Your task to perform on an android device: Add razer nari to the cart on target.com, then select checkout. Image 0: 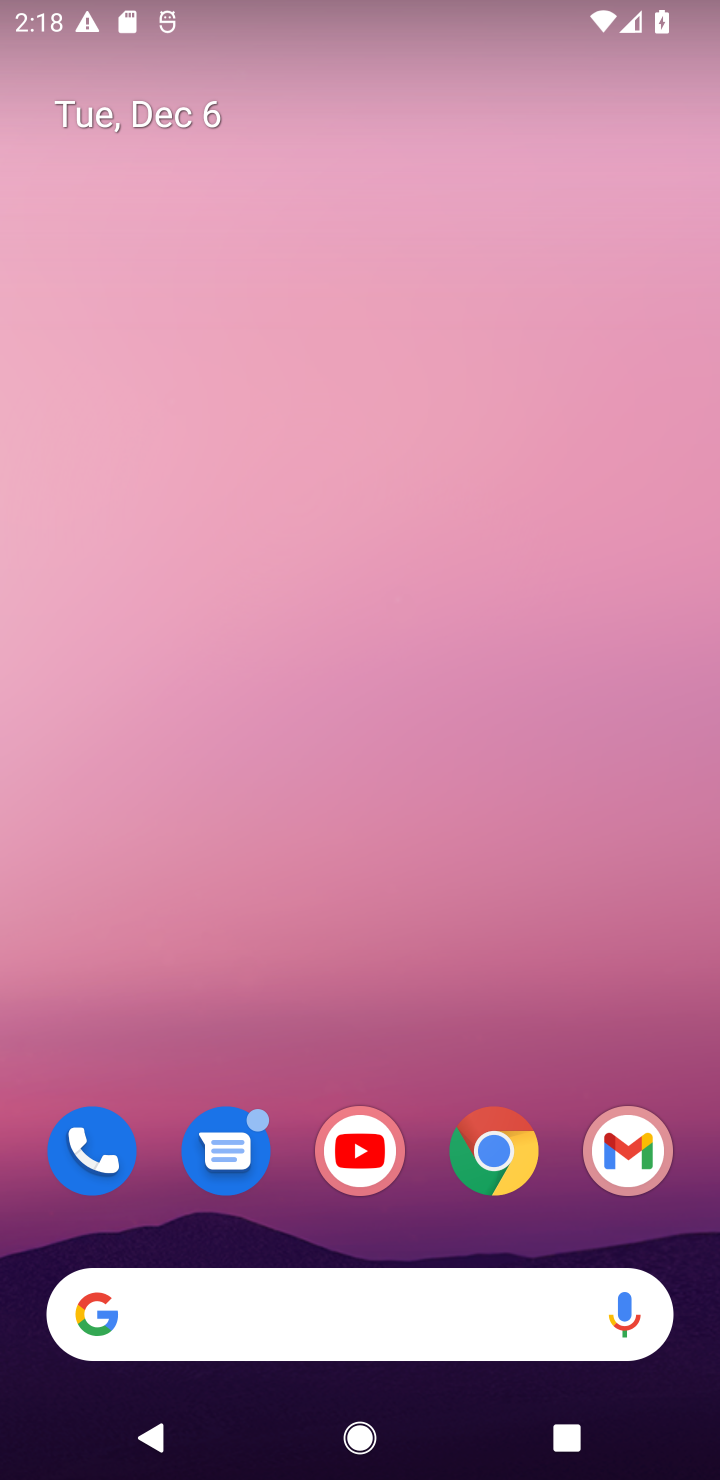
Step 0: click (497, 1150)
Your task to perform on an android device: Add razer nari to the cart on target.com, then select checkout. Image 1: 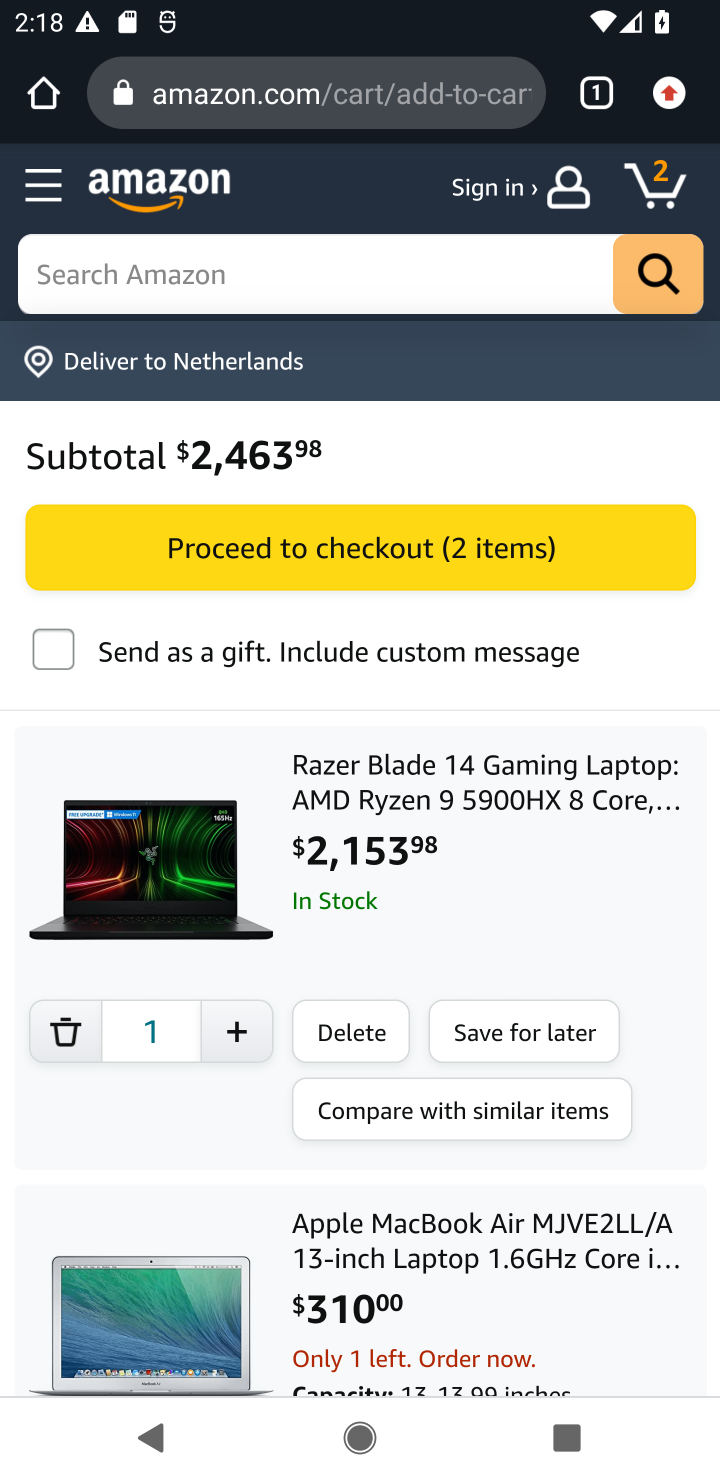
Step 1: click (275, 106)
Your task to perform on an android device: Add razer nari to the cart on target.com, then select checkout. Image 2: 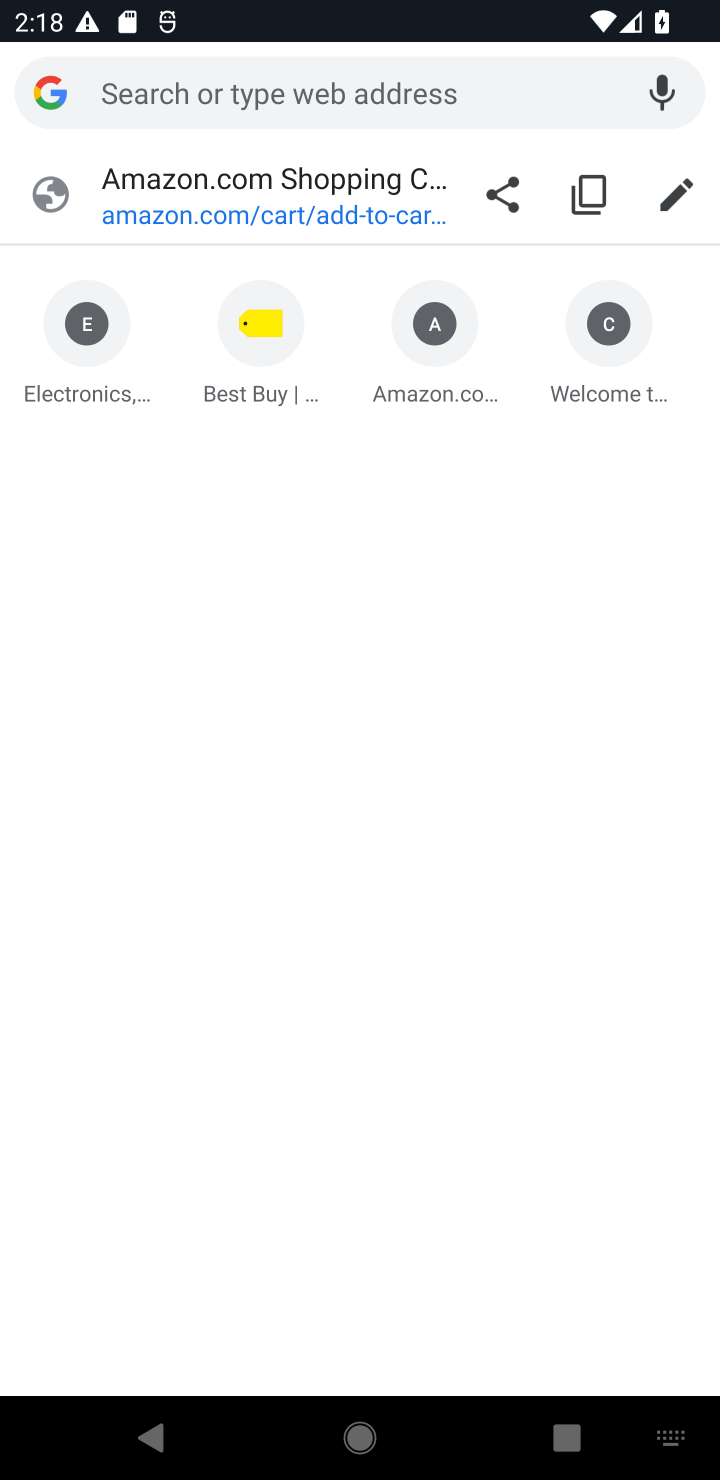
Step 2: type "target.com"
Your task to perform on an android device: Add razer nari to the cart on target.com, then select checkout. Image 3: 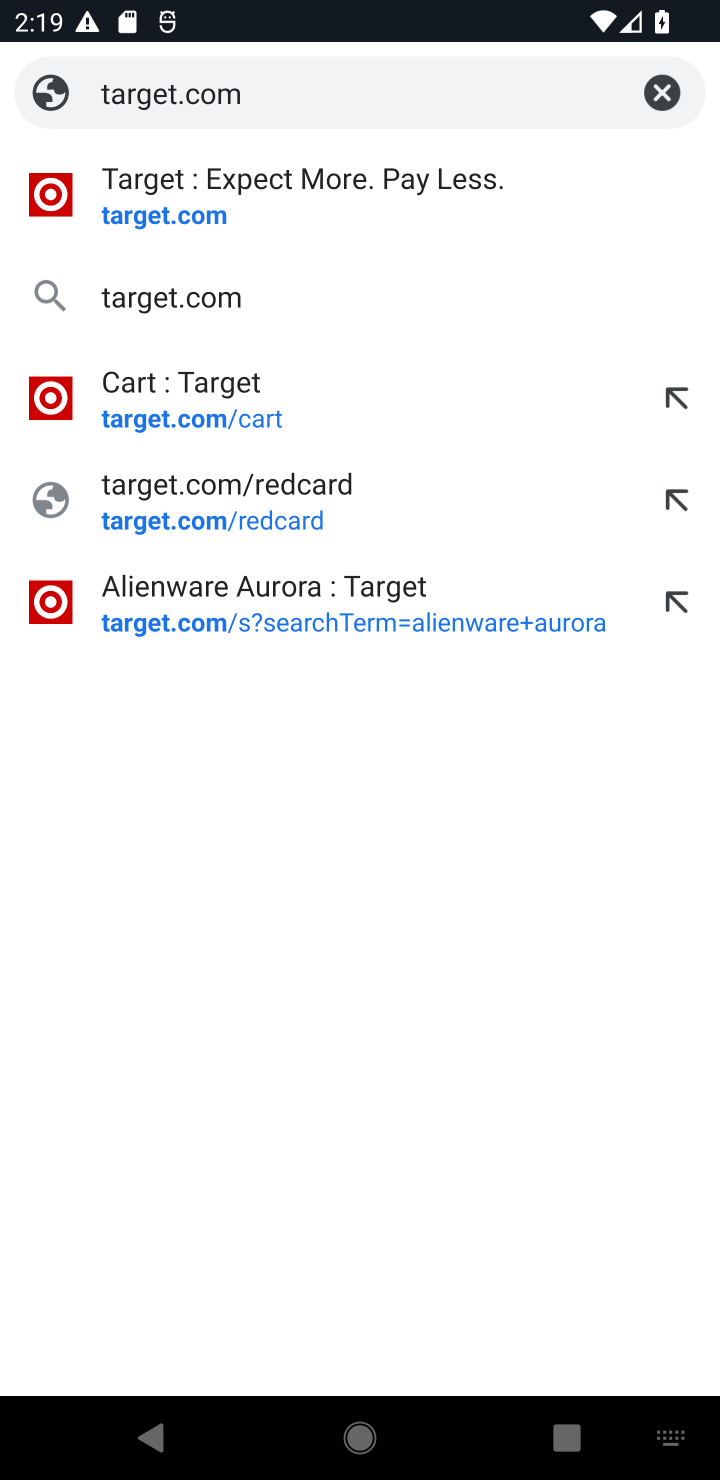
Step 3: click (139, 191)
Your task to perform on an android device: Add razer nari to the cart on target.com, then select checkout. Image 4: 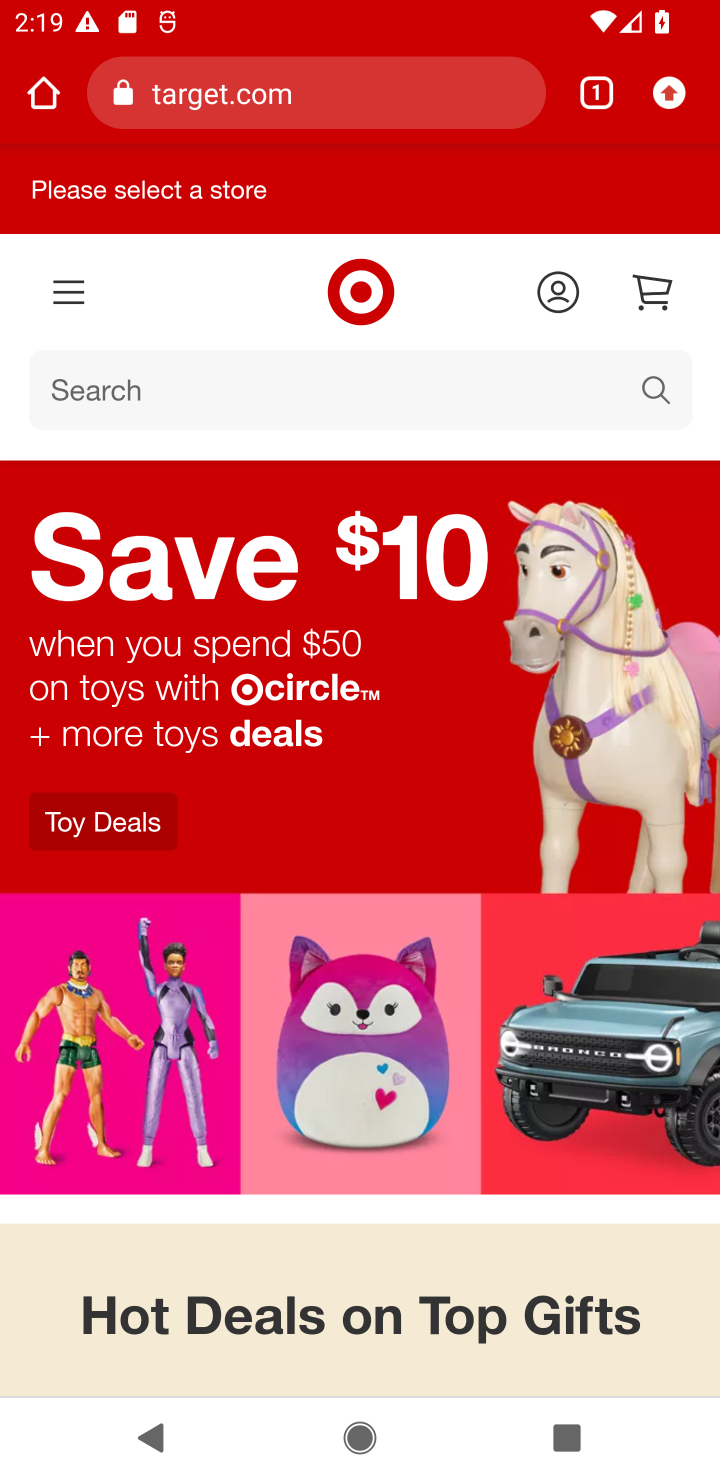
Step 4: click (121, 382)
Your task to perform on an android device: Add razer nari to the cart on target.com, then select checkout. Image 5: 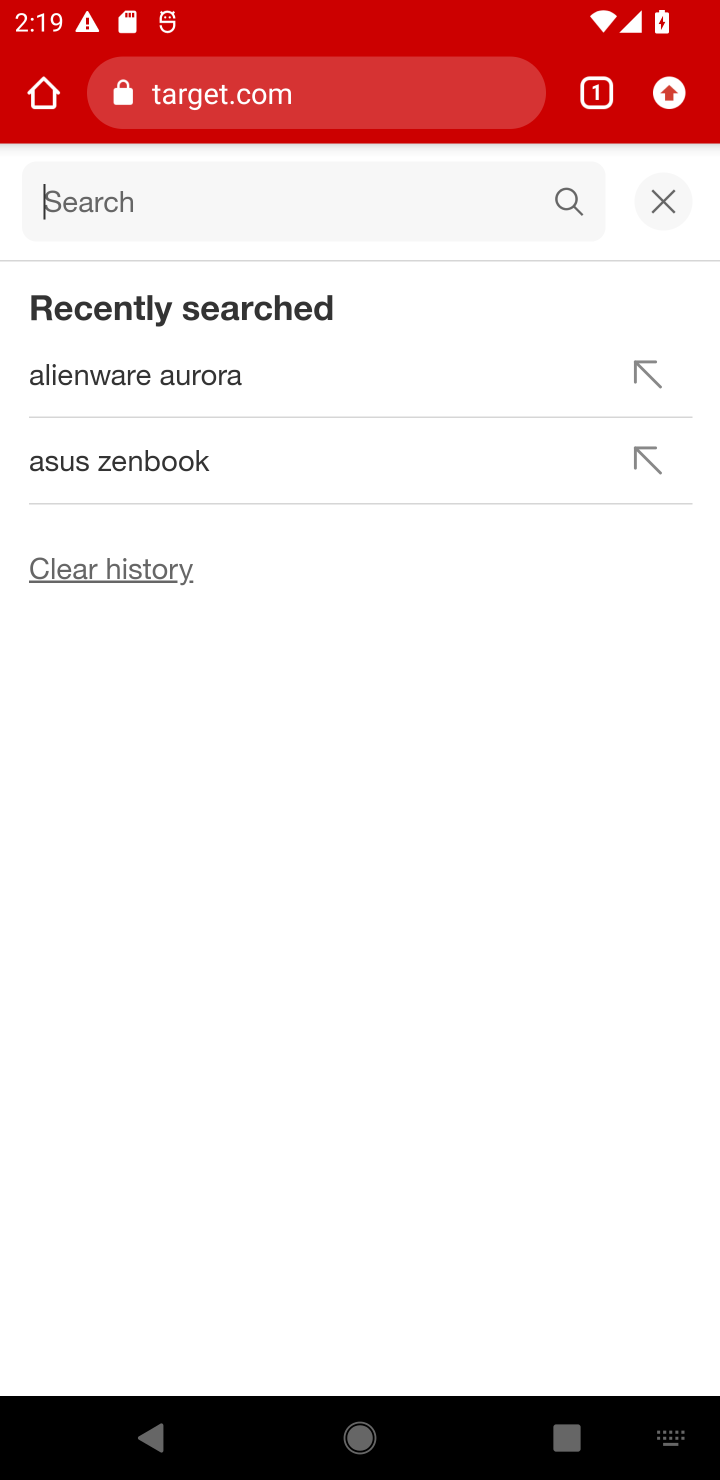
Step 5: click (77, 202)
Your task to perform on an android device: Add razer nari to the cart on target.com, then select checkout. Image 6: 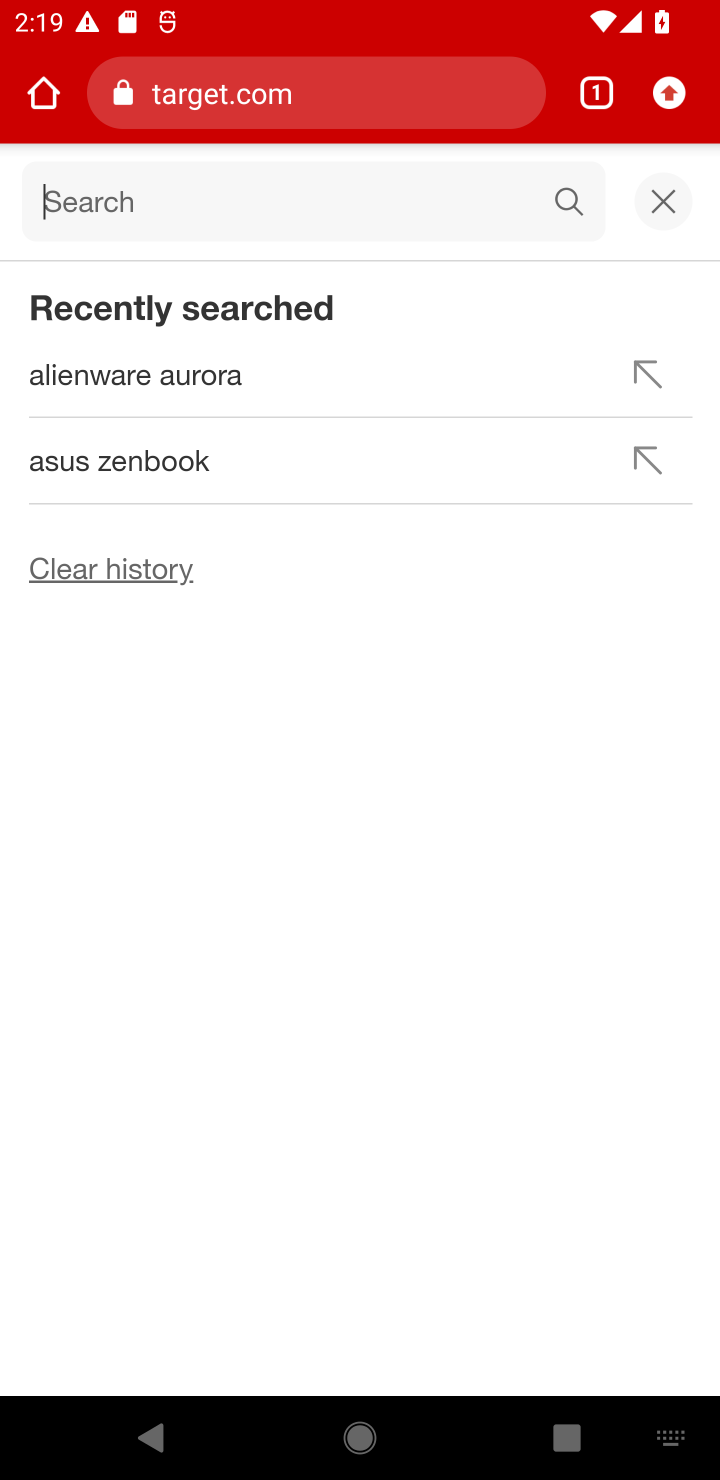
Step 6: type "razer nari "
Your task to perform on an android device: Add razer nari to the cart on target.com, then select checkout. Image 7: 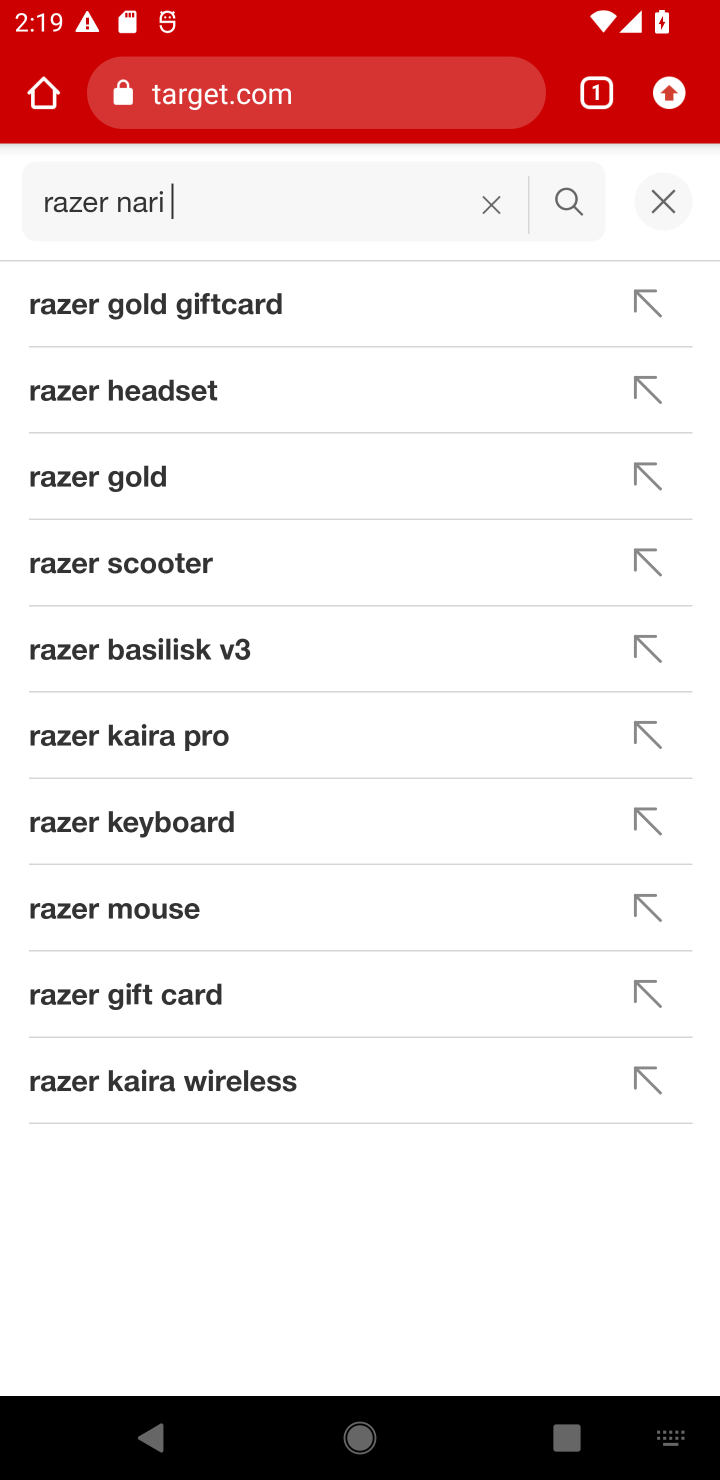
Step 7: click (580, 210)
Your task to perform on an android device: Add razer nari to the cart on target.com, then select checkout. Image 8: 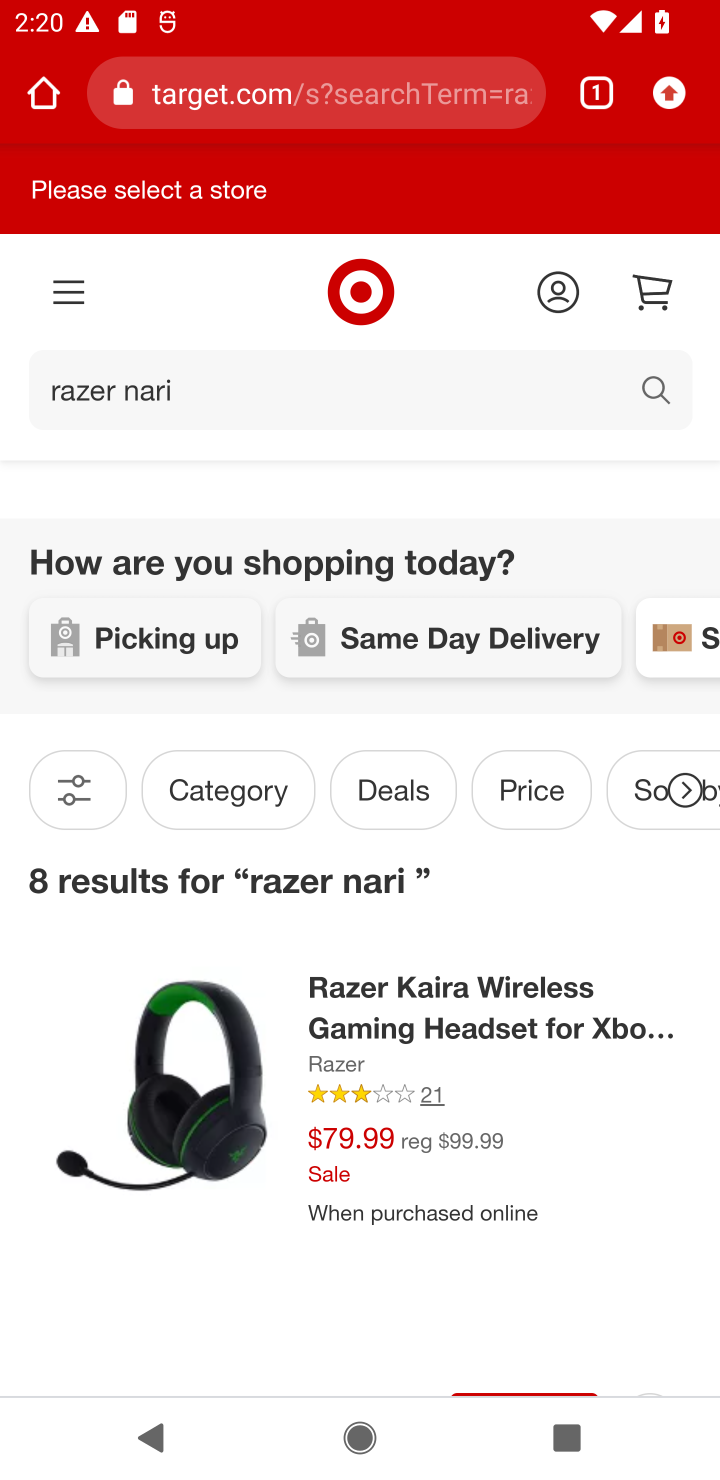
Step 8: task complete